Your task to perform on an android device: turn on wifi Image 0: 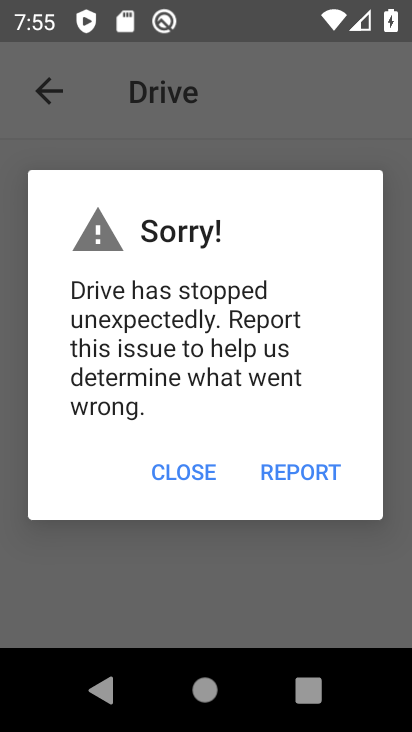
Step 0: press home button
Your task to perform on an android device: turn on wifi Image 1: 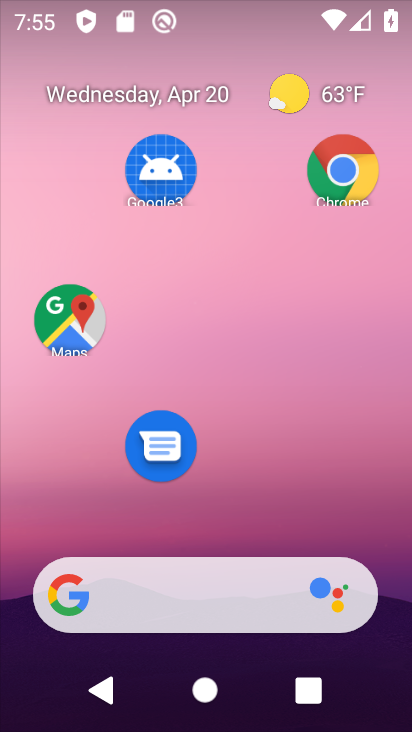
Step 1: drag from (247, 509) to (213, 26)
Your task to perform on an android device: turn on wifi Image 2: 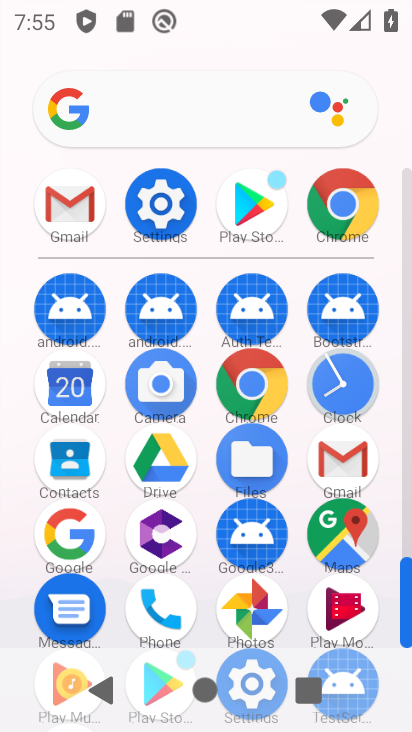
Step 2: click (166, 205)
Your task to perform on an android device: turn on wifi Image 3: 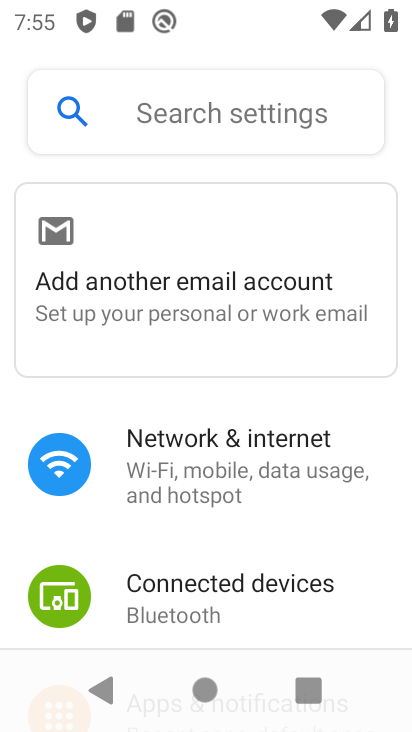
Step 3: click (184, 443)
Your task to perform on an android device: turn on wifi Image 4: 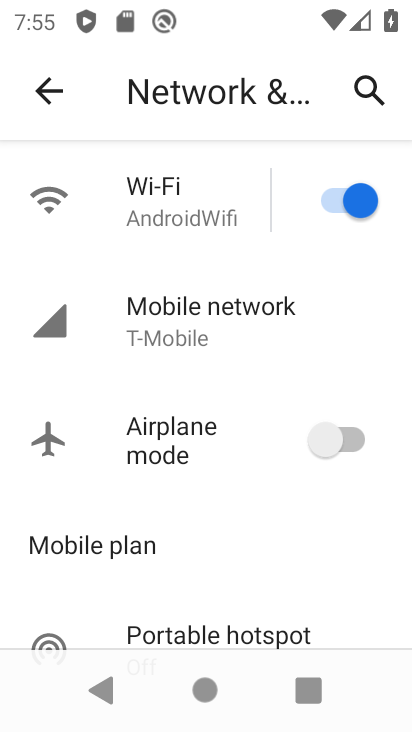
Step 4: task complete